Your task to perform on an android device: delete location history Image 0: 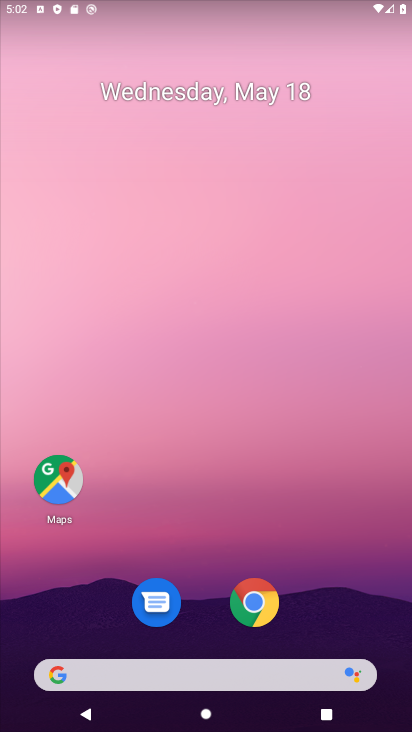
Step 0: drag from (341, 677) to (321, 15)
Your task to perform on an android device: delete location history Image 1: 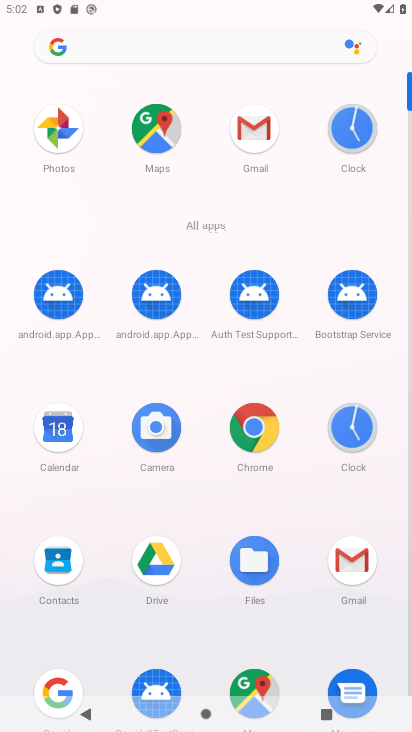
Step 1: drag from (291, 649) to (322, 328)
Your task to perform on an android device: delete location history Image 2: 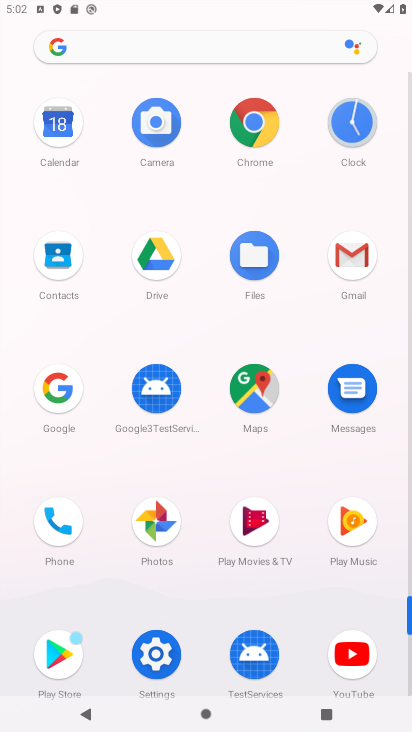
Step 2: click (250, 399)
Your task to perform on an android device: delete location history Image 3: 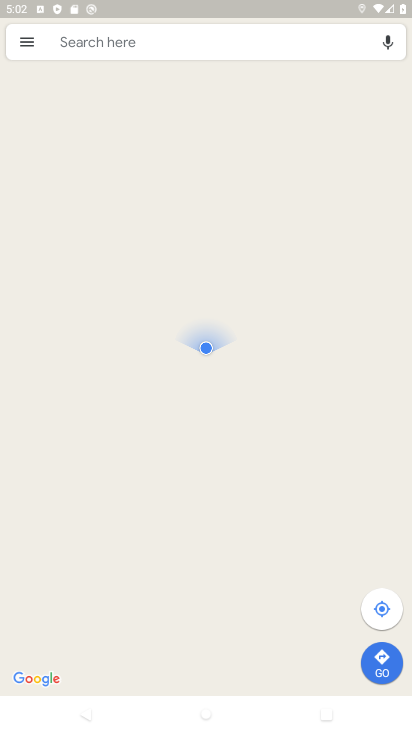
Step 3: click (22, 36)
Your task to perform on an android device: delete location history Image 4: 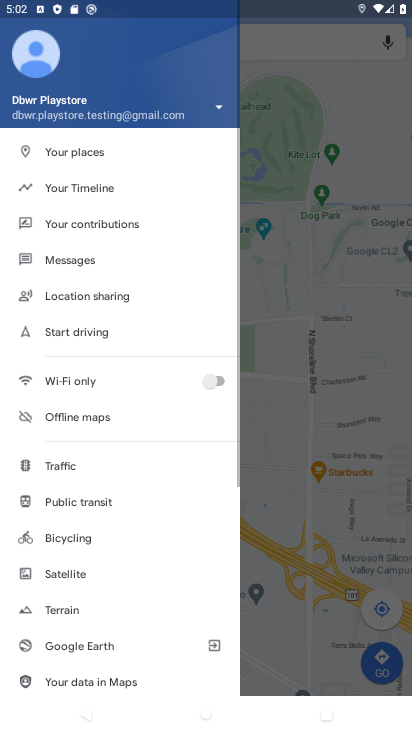
Step 4: click (85, 191)
Your task to perform on an android device: delete location history Image 5: 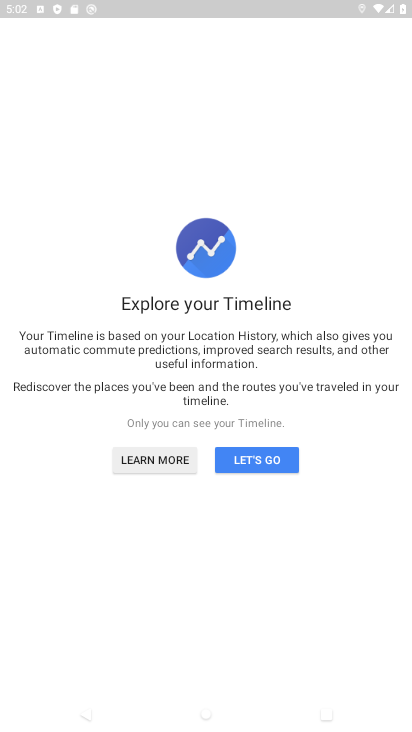
Step 5: click (256, 461)
Your task to perform on an android device: delete location history Image 6: 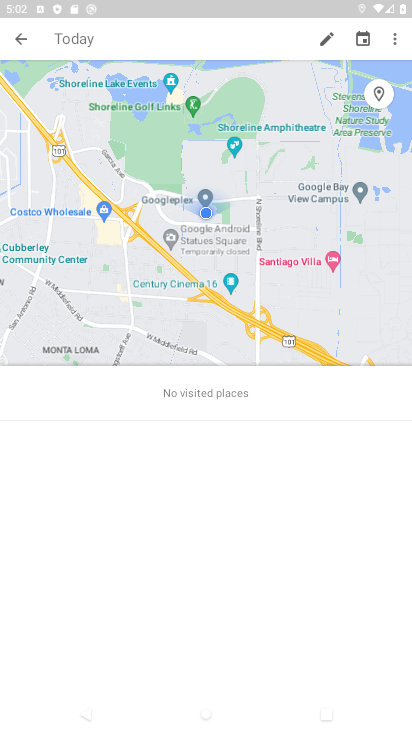
Step 6: click (399, 47)
Your task to perform on an android device: delete location history Image 7: 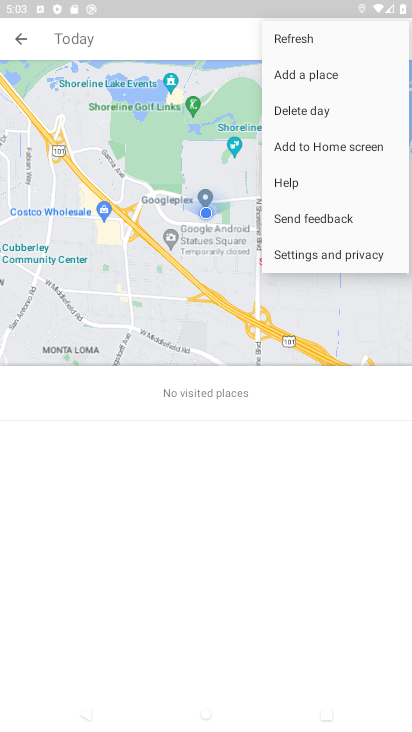
Step 7: click (312, 250)
Your task to perform on an android device: delete location history Image 8: 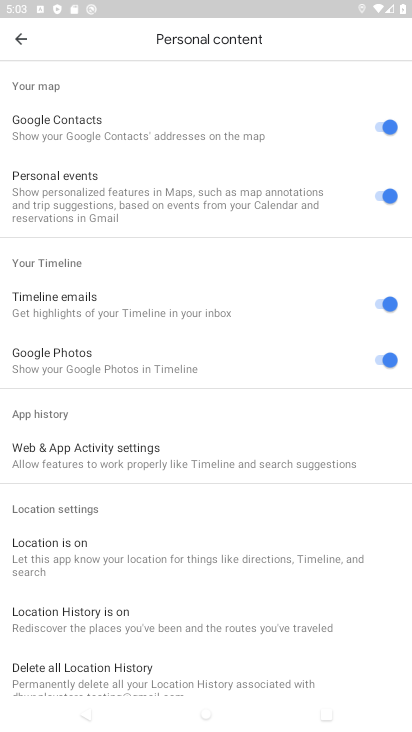
Step 8: drag from (199, 677) to (186, 236)
Your task to perform on an android device: delete location history Image 9: 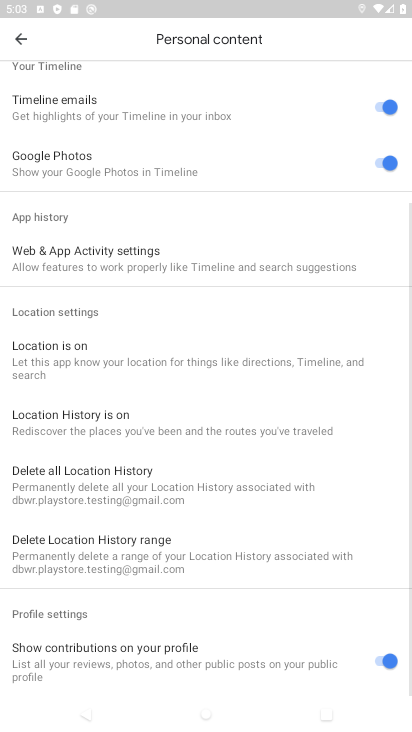
Step 9: click (187, 481)
Your task to perform on an android device: delete location history Image 10: 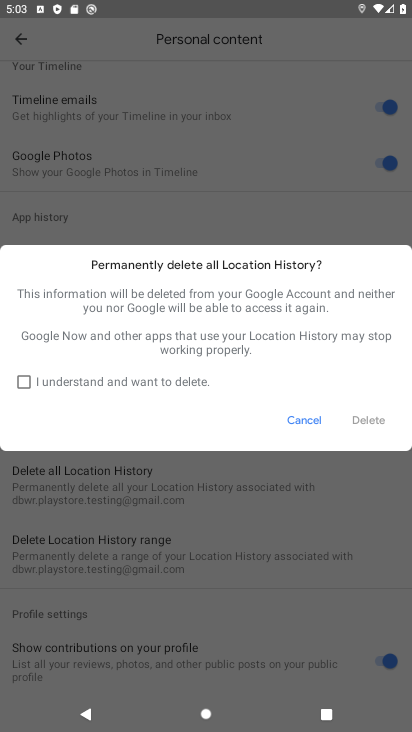
Step 10: click (24, 389)
Your task to perform on an android device: delete location history Image 11: 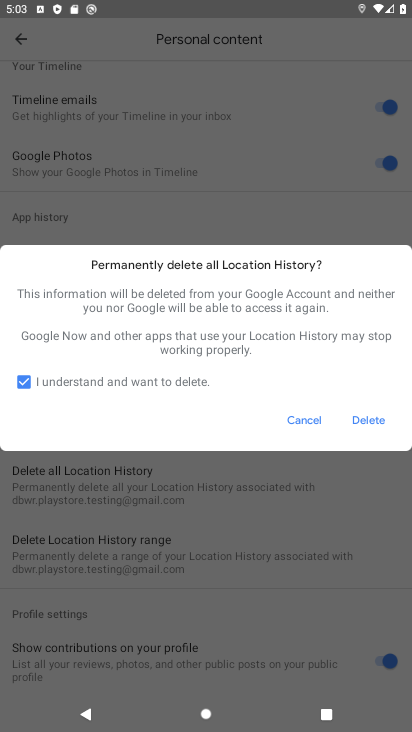
Step 11: click (375, 418)
Your task to perform on an android device: delete location history Image 12: 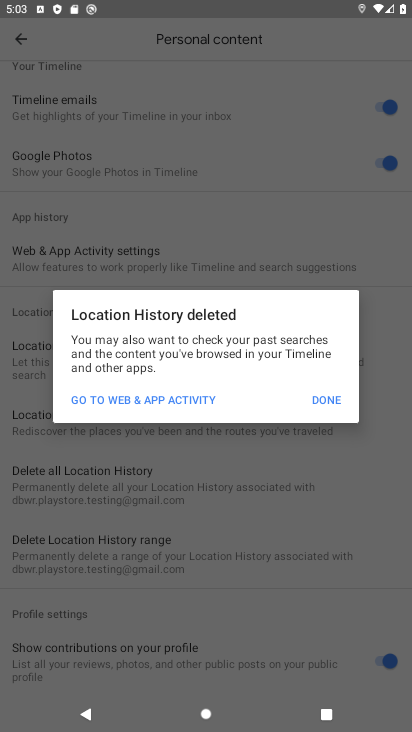
Step 12: click (327, 404)
Your task to perform on an android device: delete location history Image 13: 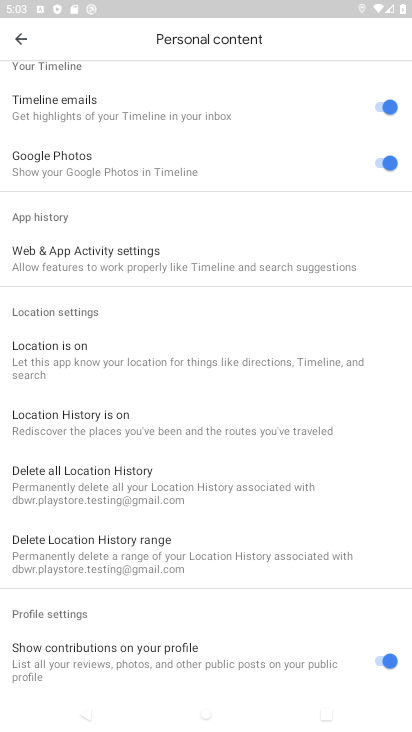
Step 13: task complete